Your task to perform on an android device: Go to settings Image 0: 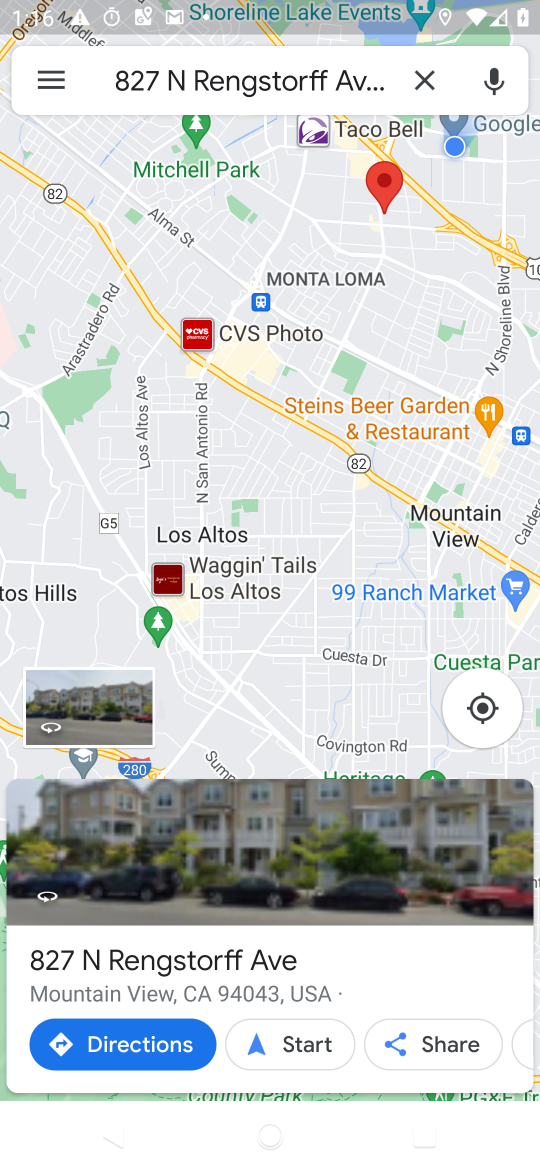
Step 0: click (307, 320)
Your task to perform on an android device: Go to settings Image 1: 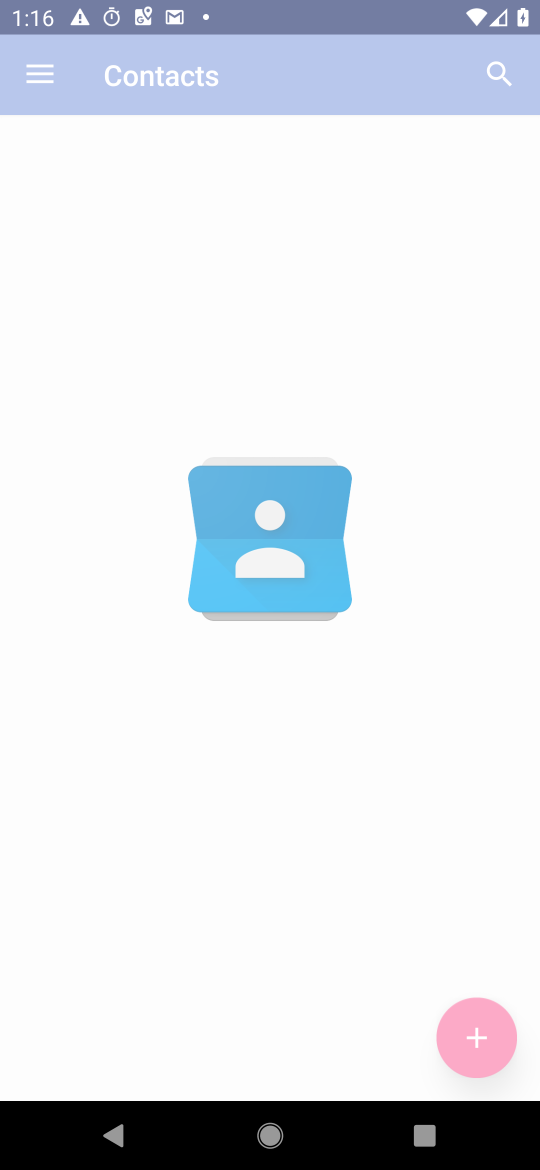
Step 1: drag from (312, 460) to (388, 883)
Your task to perform on an android device: Go to settings Image 2: 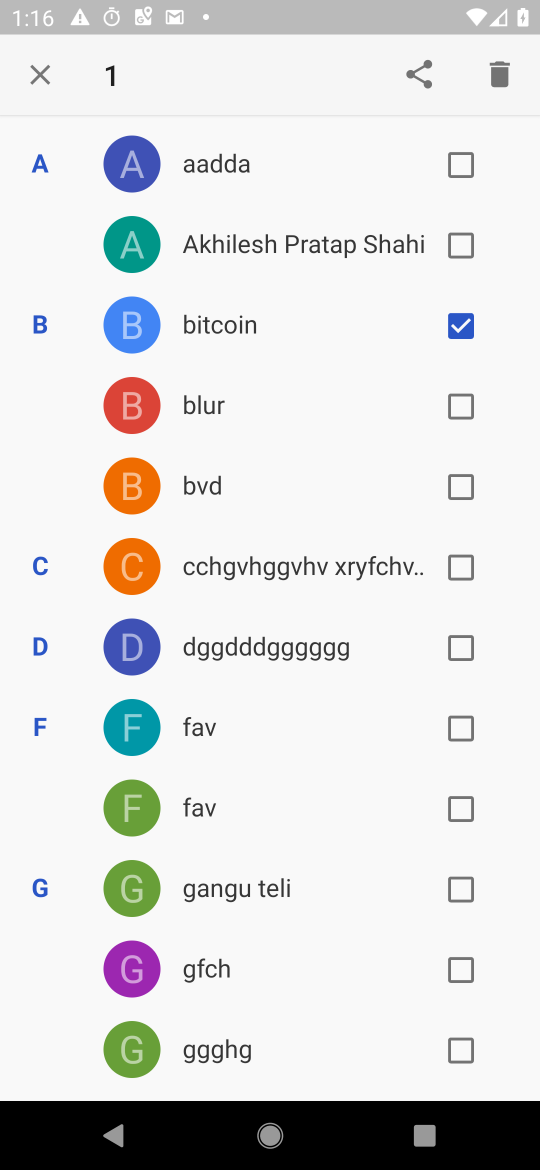
Step 2: press home button
Your task to perform on an android device: Go to settings Image 3: 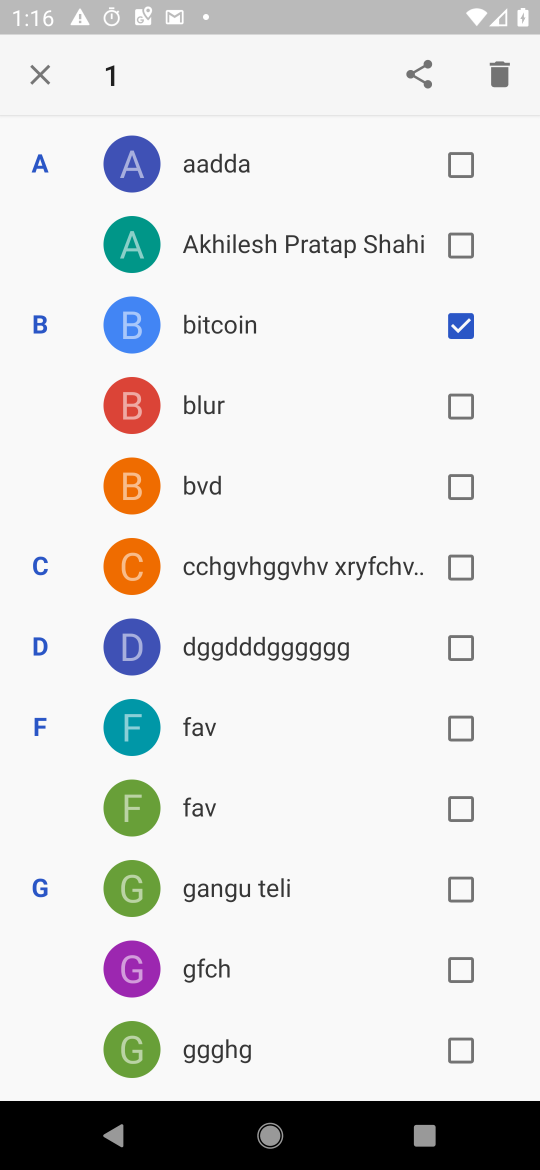
Step 3: press home button
Your task to perform on an android device: Go to settings Image 4: 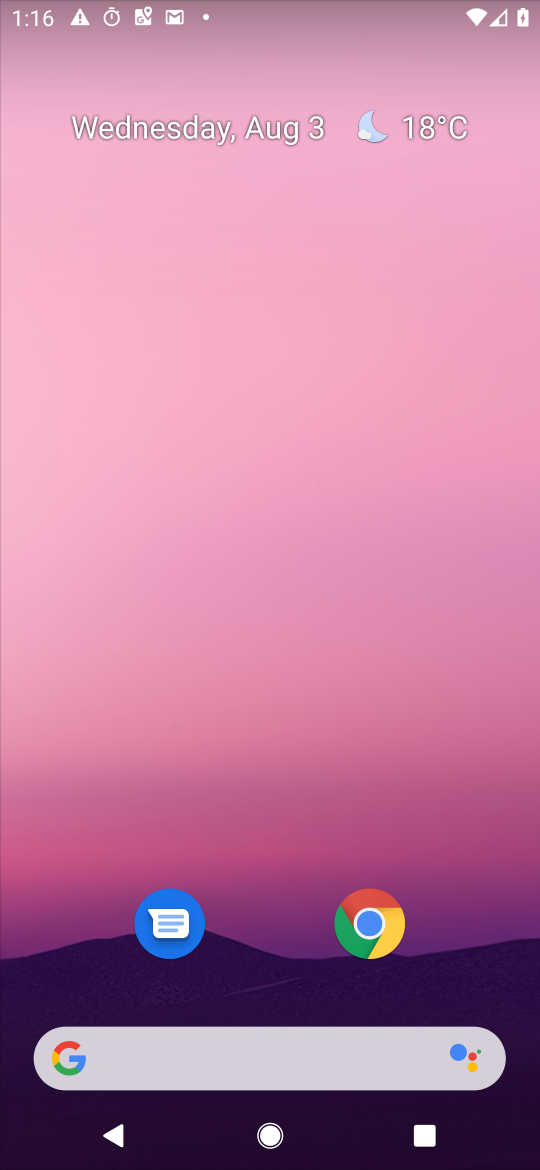
Step 4: press home button
Your task to perform on an android device: Go to settings Image 5: 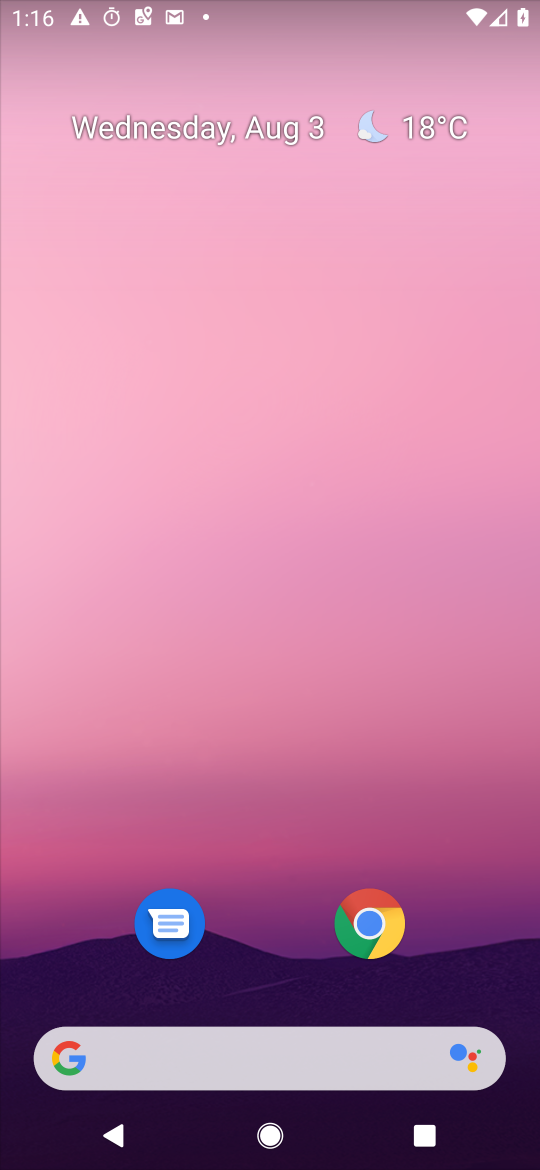
Step 5: press home button
Your task to perform on an android device: Go to settings Image 6: 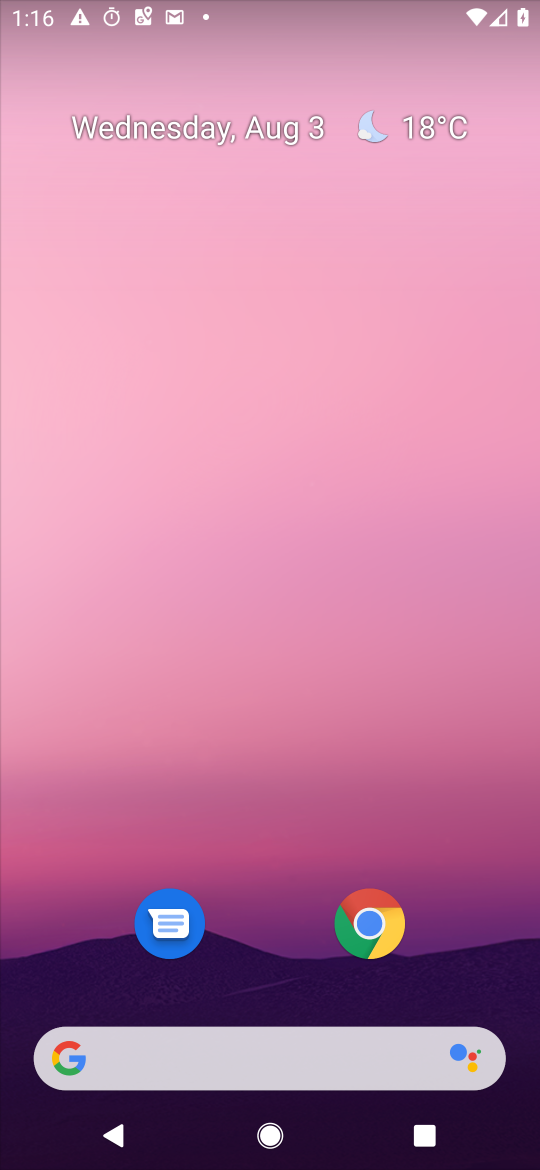
Step 6: press home button
Your task to perform on an android device: Go to settings Image 7: 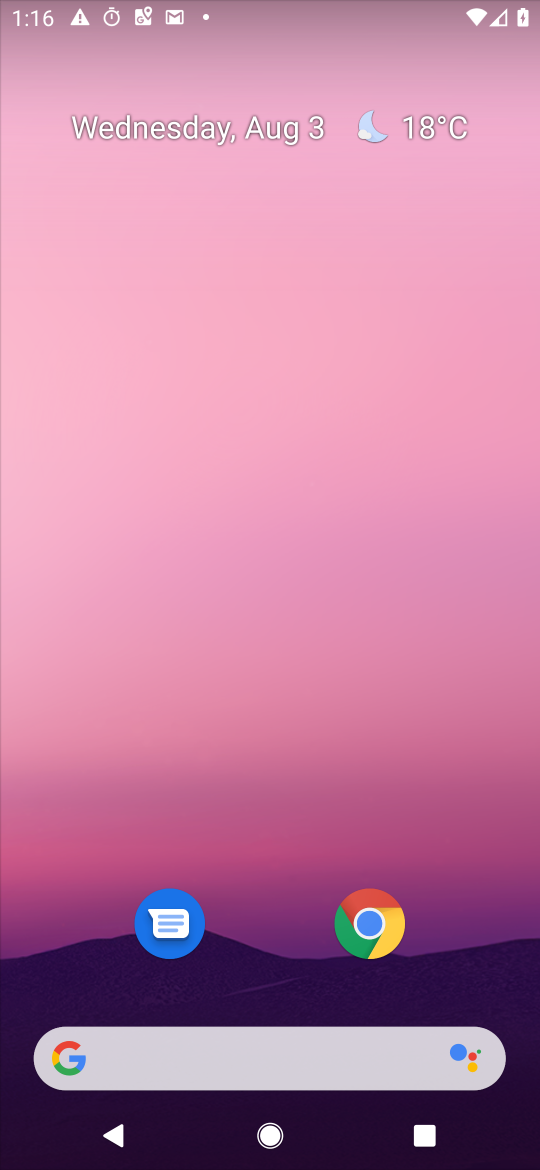
Step 7: press home button
Your task to perform on an android device: Go to settings Image 8: 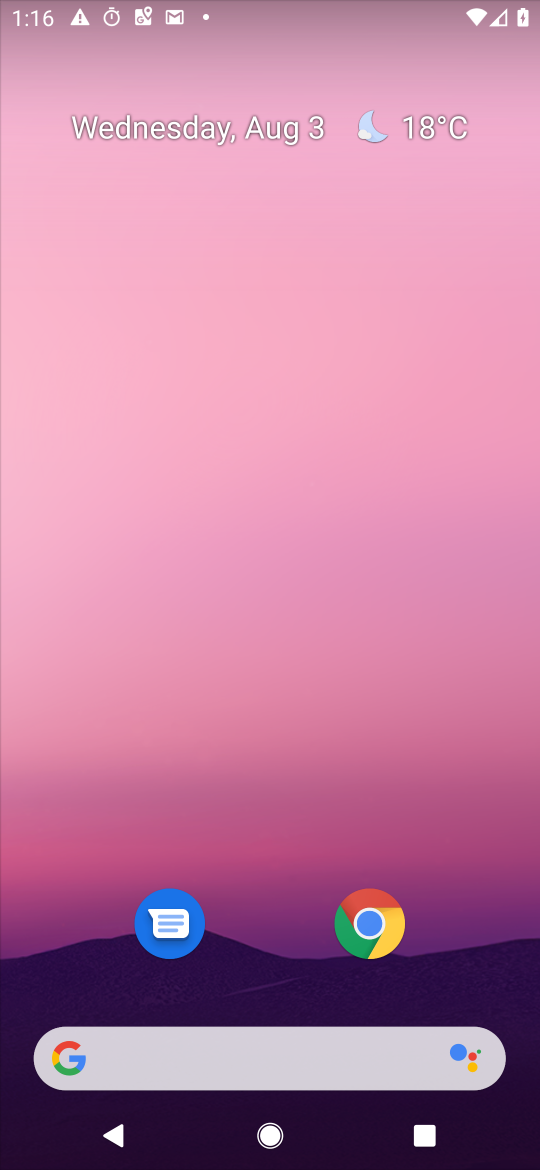
Step 8: press home button
Your task to perform on an android device: Go to settings Image 9: 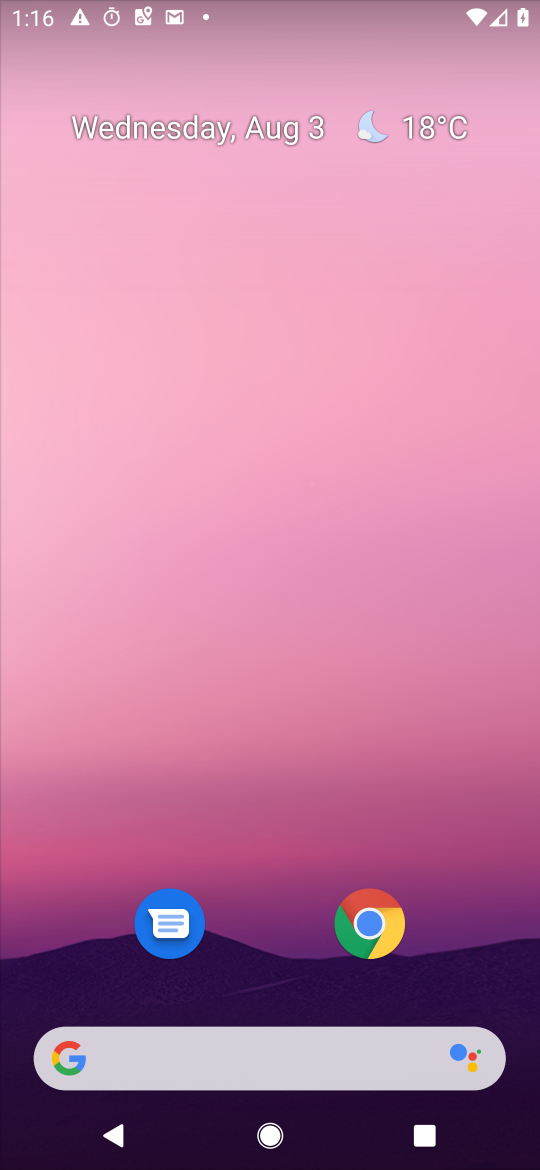
Step 9: press home button
Your task to perform on an android device: Go to settings Image 10: 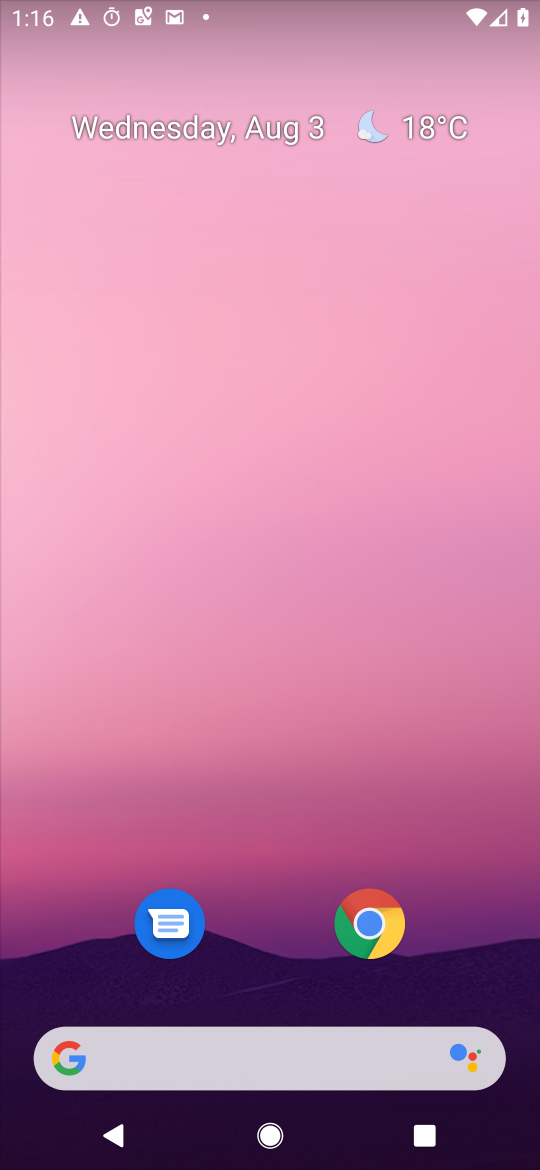
Step 10: press home button
Your task to perform on an android device: Go to settings Image 11: 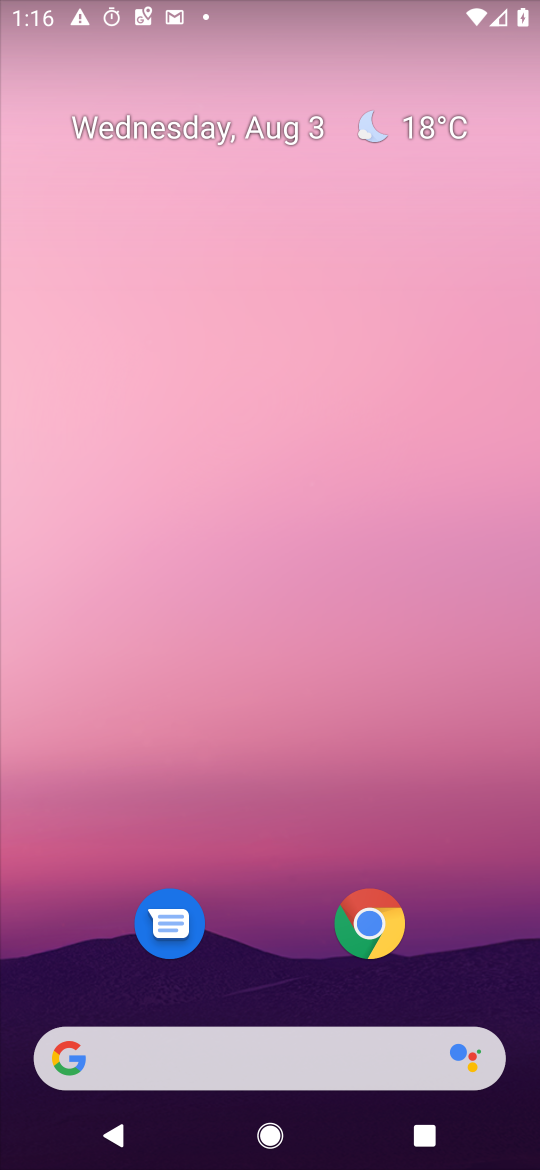
Step 11: press home button
Your task to perform on an android device: Go to settings Image 12: 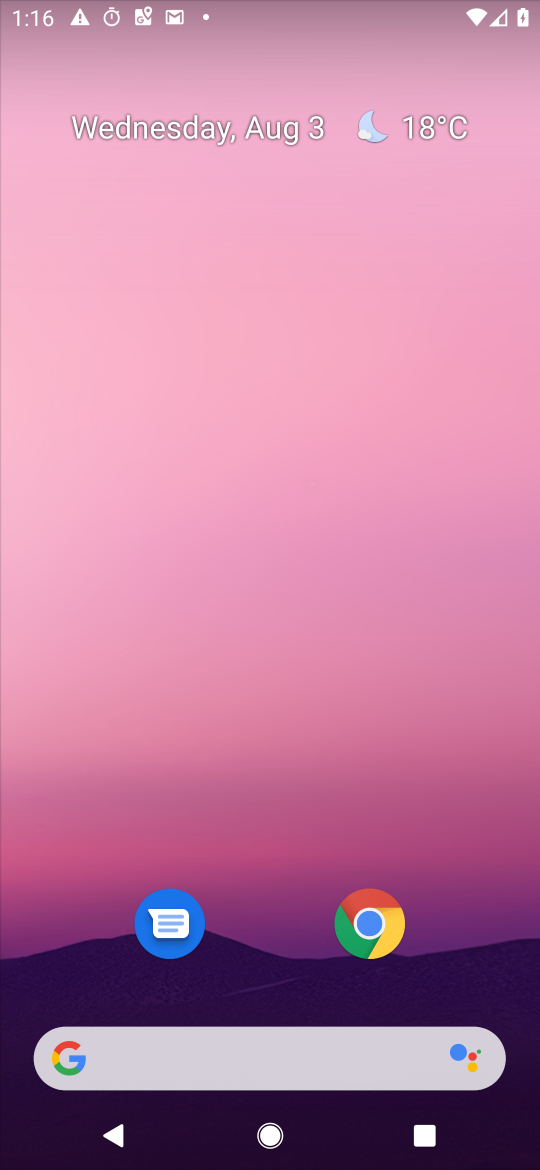
Step 12: drag from (256, 974) to (370, 376)
Your task to perform on an android device: Go to settings Image 13: 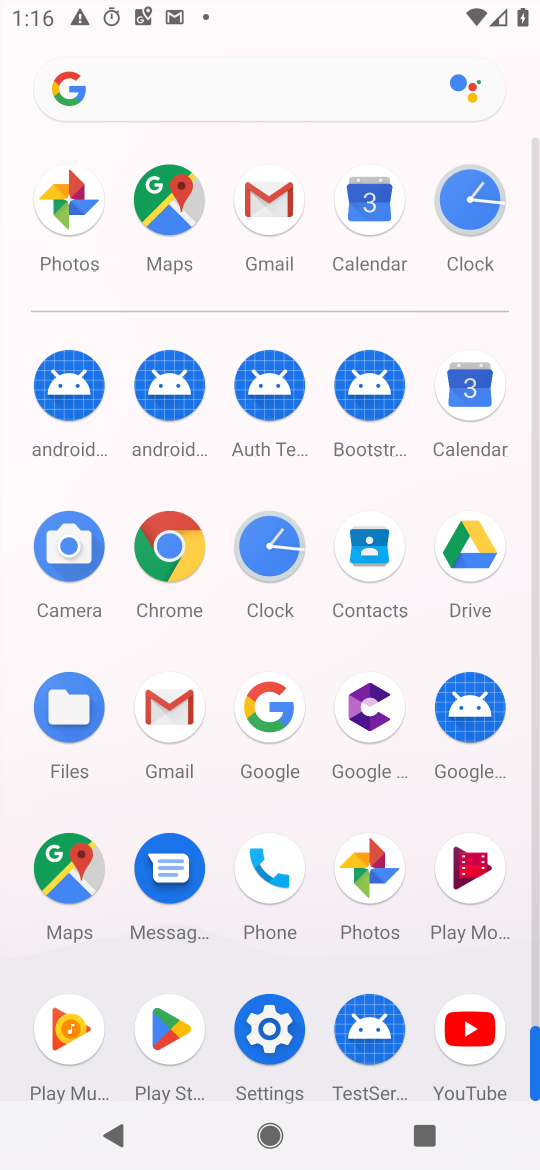
Step 13: drag from (325, 1027) to (240, 512)
Your task to perform on an android device: Go to settings Image 14: 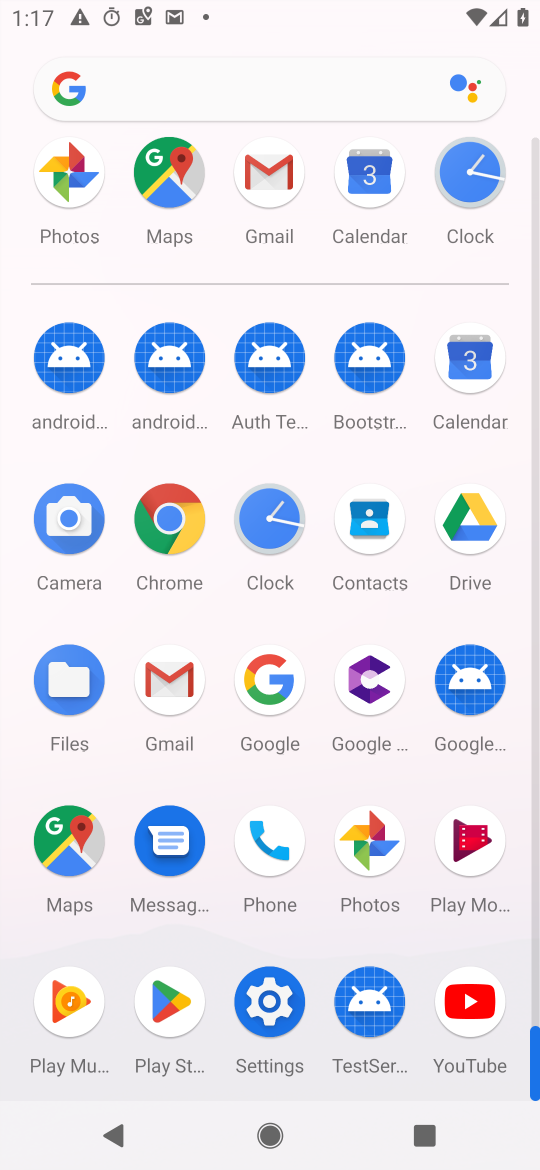
Step 14: click (280, 1011)
Your task to perform on an android device: Go to settings Image 15: 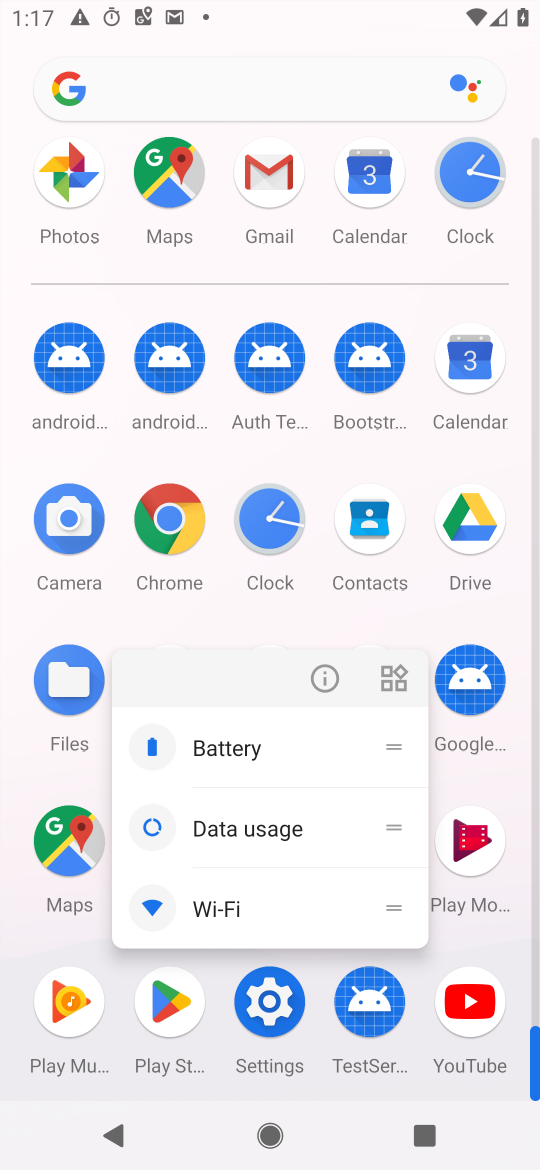
Step 15: click (326, 674)
Your task to perform on an android device: Go to settings Image 16: 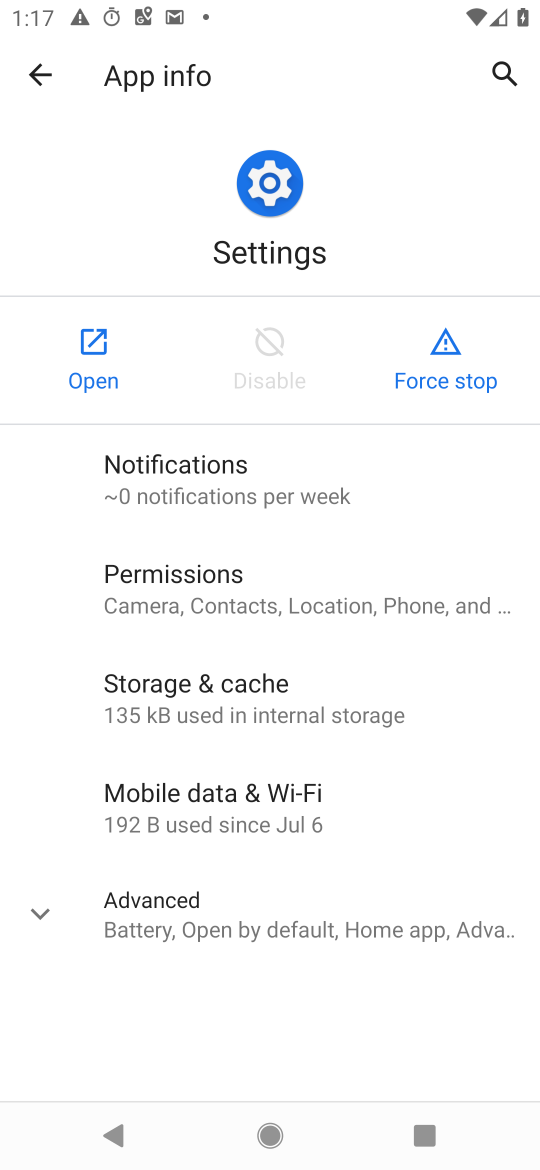
Step 16: click (75, 344)
Your task to perform on an android device: Go to settings Image 17: 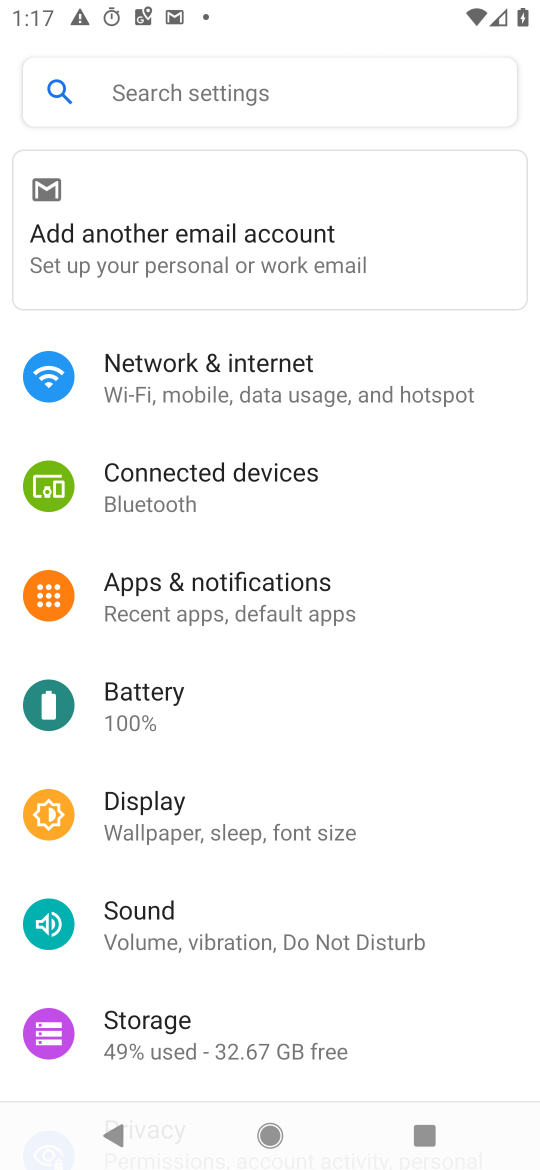
Step 17: task complete